Your task to perform on an android device: Open Youtube and go to "Your channel" Image 0: 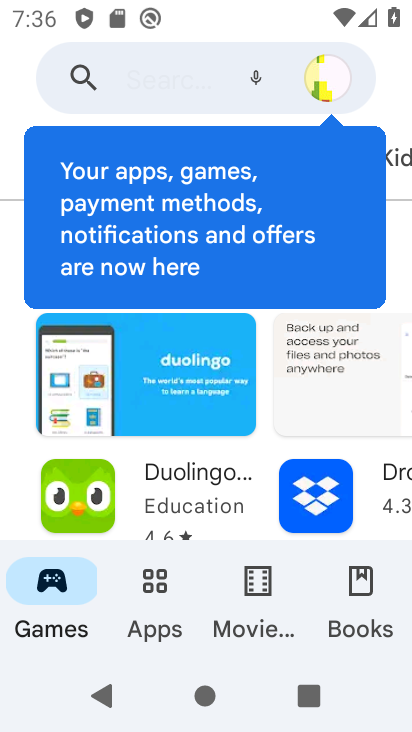
Step 0: press home button
Your task to perform on an android device: Open Youtube and go to "Your channel" Image 1: 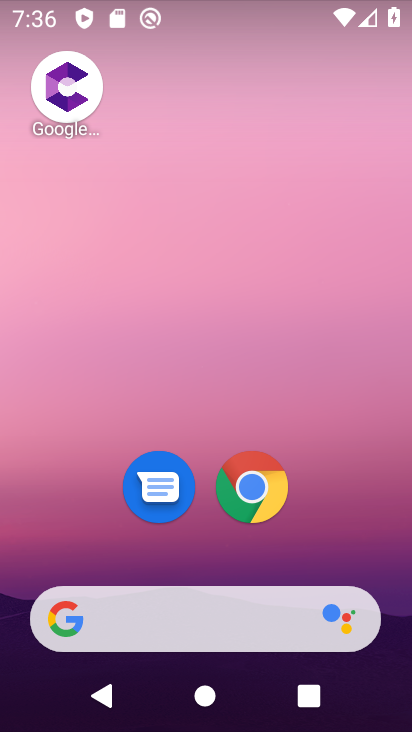
Step 1: drag from (85, 576) to (73, 119)
Your task to perform on an android device: Open Youtube and go to "Your channel" Image 2: 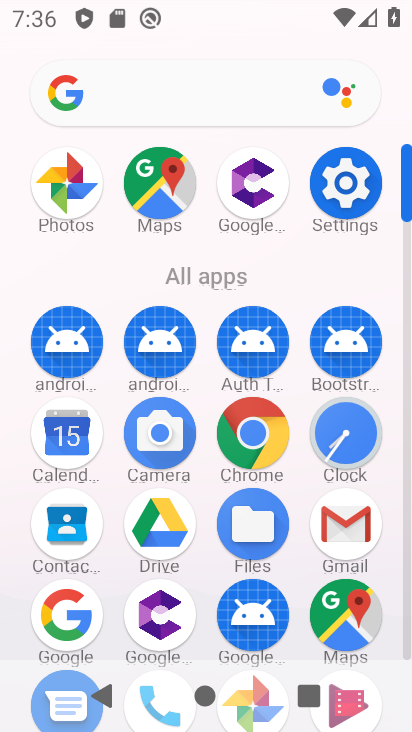
Step 2: drag from (204, 588) to (232, 61)
Your task to perform on an android device: Open Youtube and go to "Your channel" Image 3: 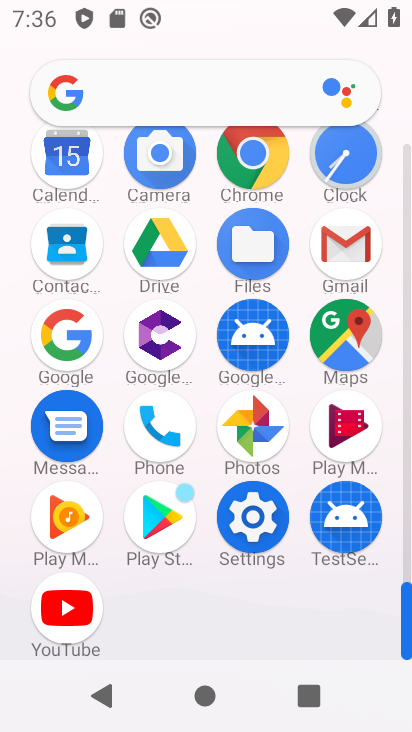
Step 3: click (63, 606)
Your task to perform on an android device: Open Youtube and go to "Your channel" Image 4: 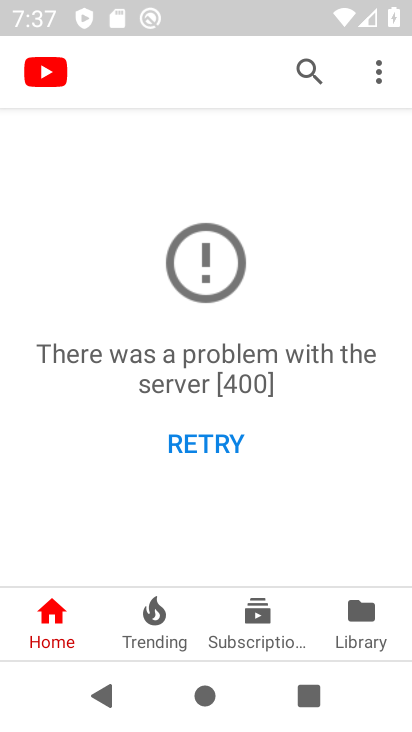
Step 4: click (376, 74)
Your task to perform on an android device: Open Youtube and go to "Your channel" Image 5: 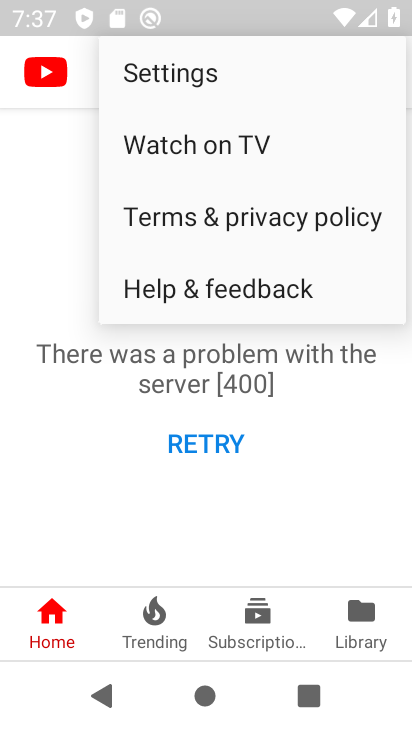
Step 5: task complete